Your task to perform on an android device: Add macbook pro 13 inch to the cart on amazon.com Image 0: 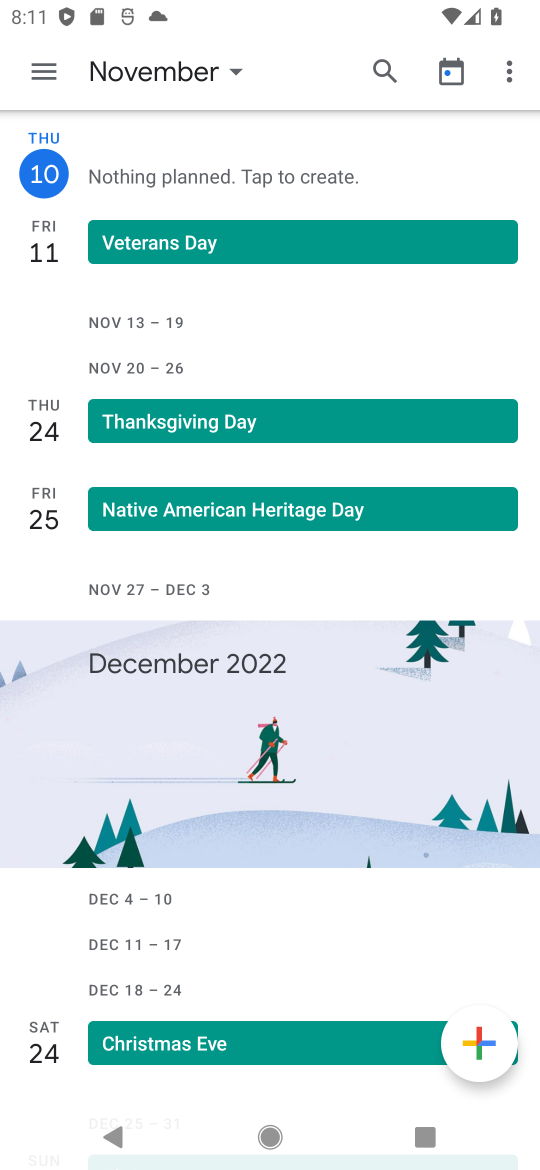
Step 0: press home button
Your task to perform on an android device: Add macbook pro 13 inch to the cart on amazon.com Image 1: 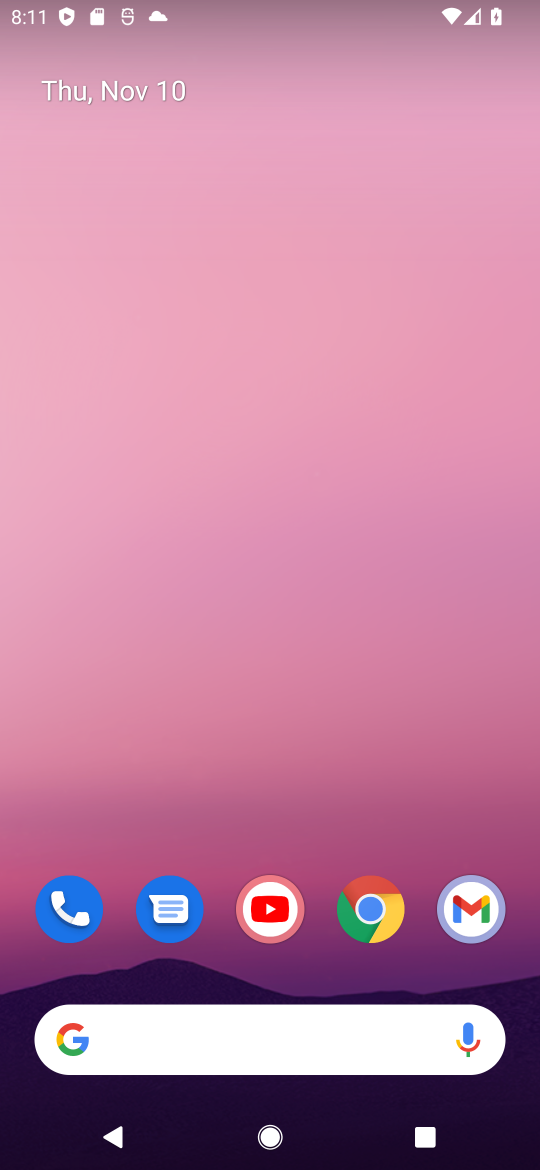
Step 1: click (306, 206)
Your task to perform on an android device: Add macbook pro 13 inch to the cart on amazon.com Image 2: 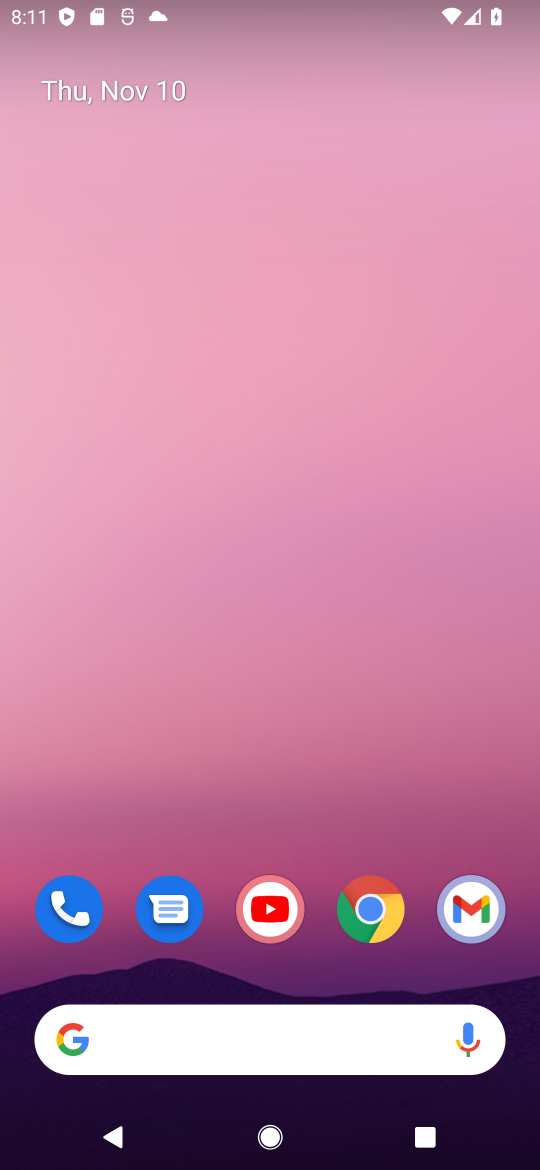
Step 2: drag from (243, 1003) to (243, 401)
Your task to perform on an android device: Add macbook pro 13 inch to the cart on amazon.com Image 3: 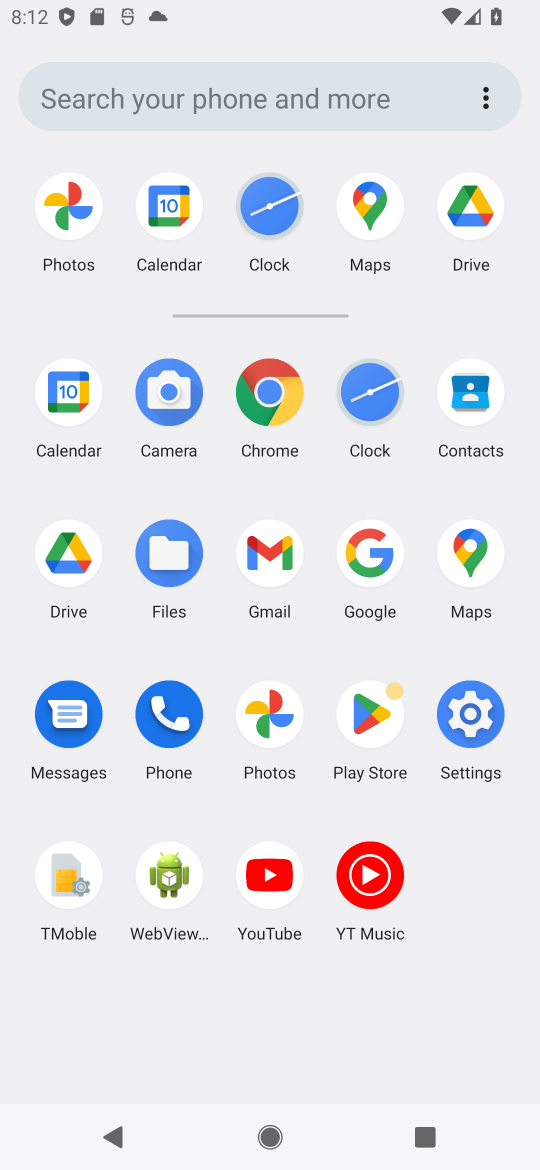
Step 3: click (360, 543)
Your task to perform on an android device: Add macbook pro 13 inch to the cart on amazon.com Image 4: 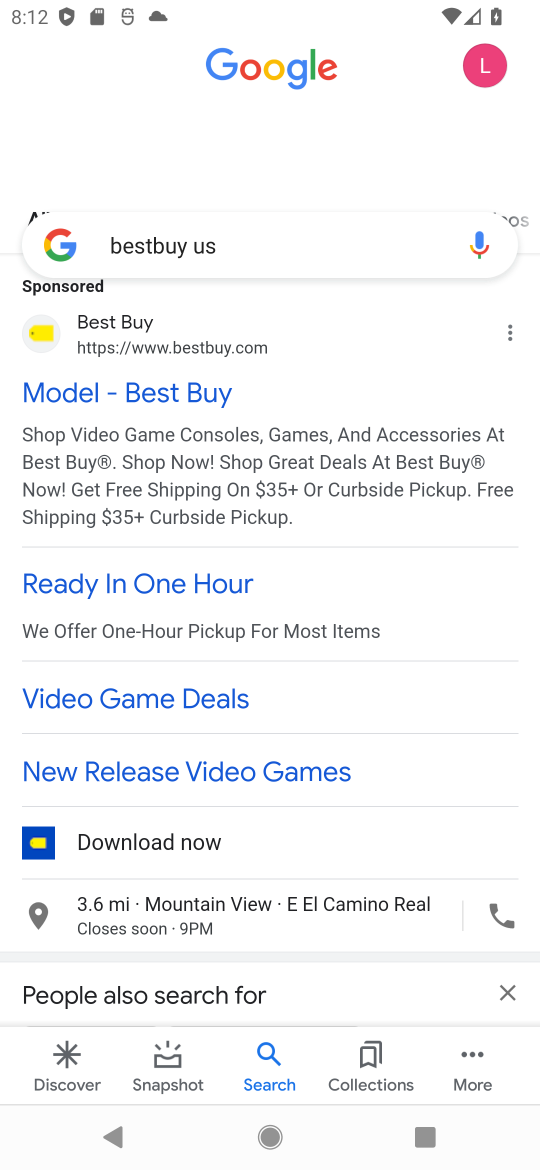
Step 4: click (313, 244)
Your task to perform on an android device: Add macbook pro 13 inch to the cart on amazon.com Image 5: 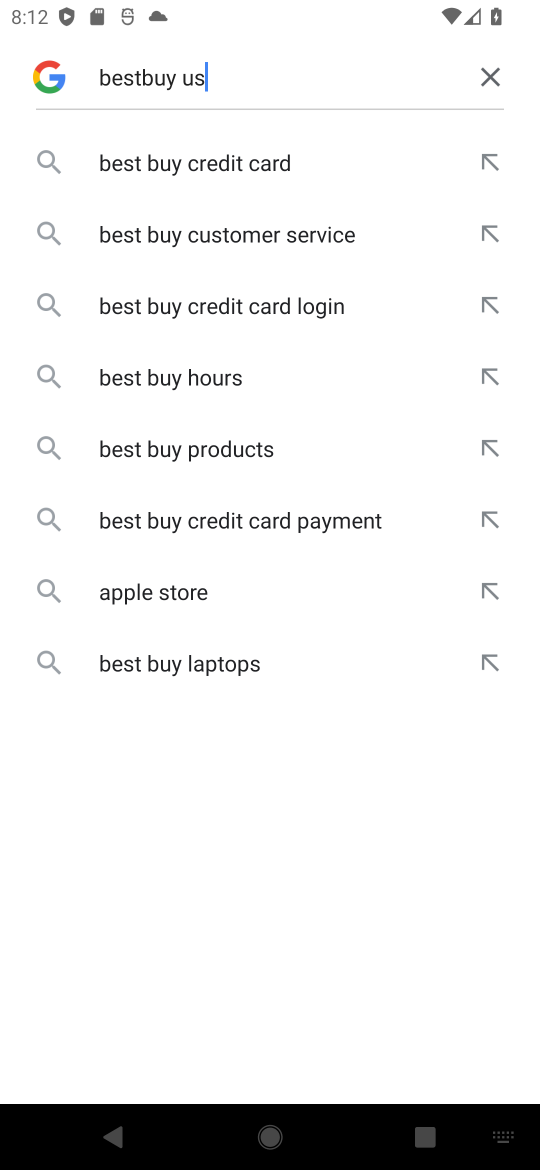
Step 5: click (477, 88)
Your task to perform on an android device: Add macbook pro 13 inch to the cart on amazon.com Image 6: 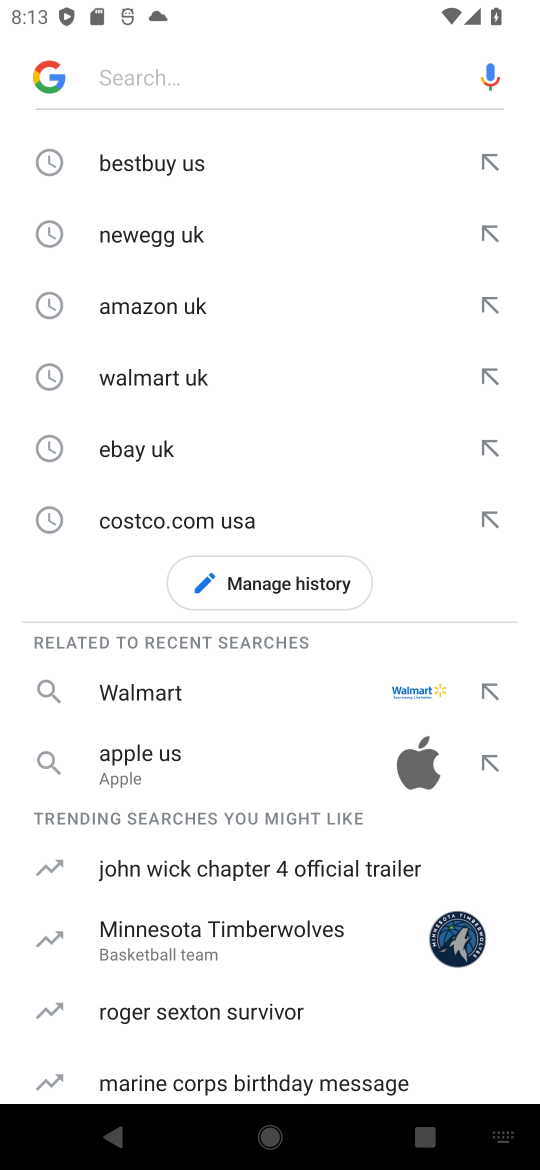
Step 6: click (209, 63)
Your task to perform on an android device: Add macbook pro 13 inch to the cart on amazon.com Image 7: 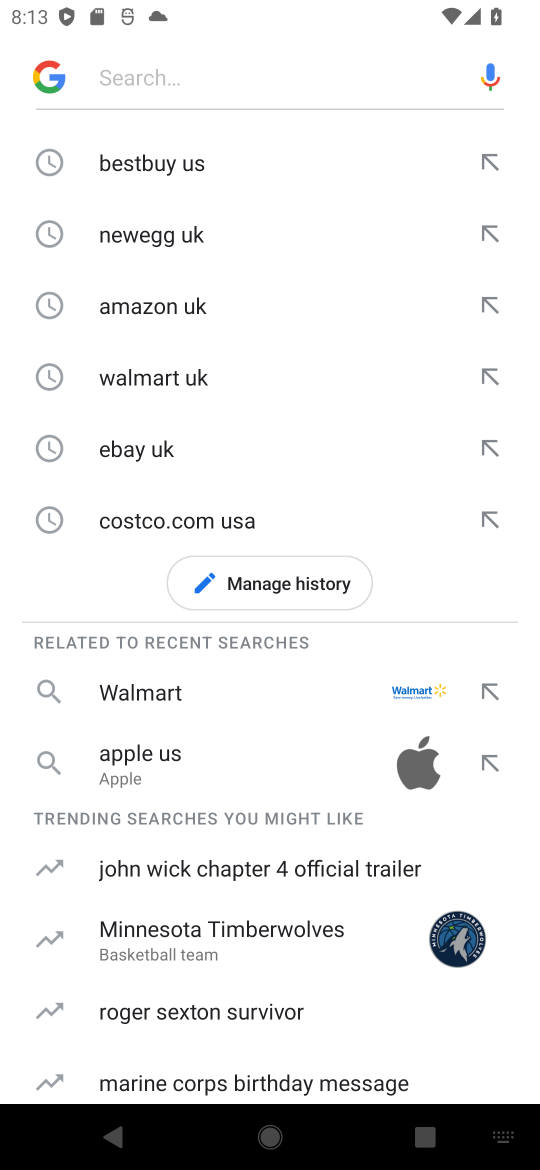
Step 7: type "amazon "
Your task to perform on an android device: Add macbook pro 13 inch to the cart on amazon.com Image 8: 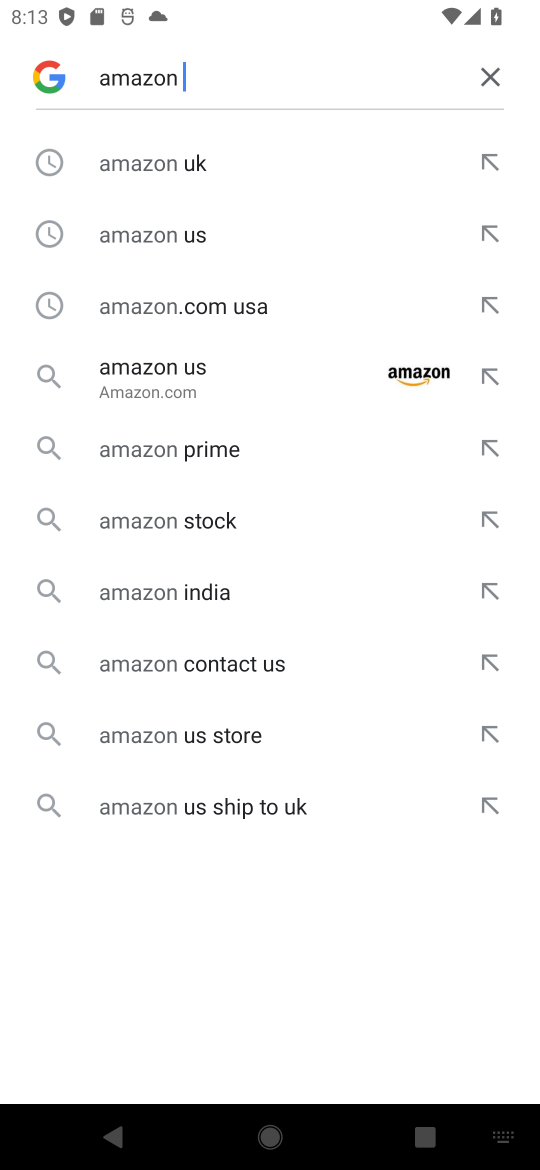
Step 8: click (169, 167)
Your task to perform on an android device: Add macbook pro 13 inch to the cart on amazon.com Image 9: 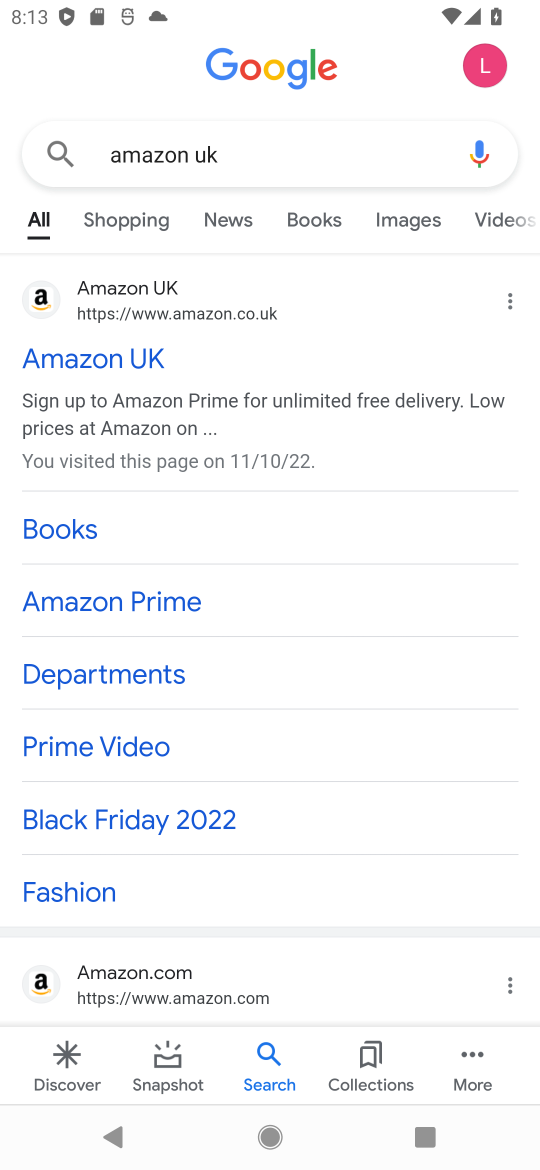
Step 9: click (47, 308)
Your task to perform on an android device: Add macbook pro 13 inch to the cart on amazon.com Image 10: 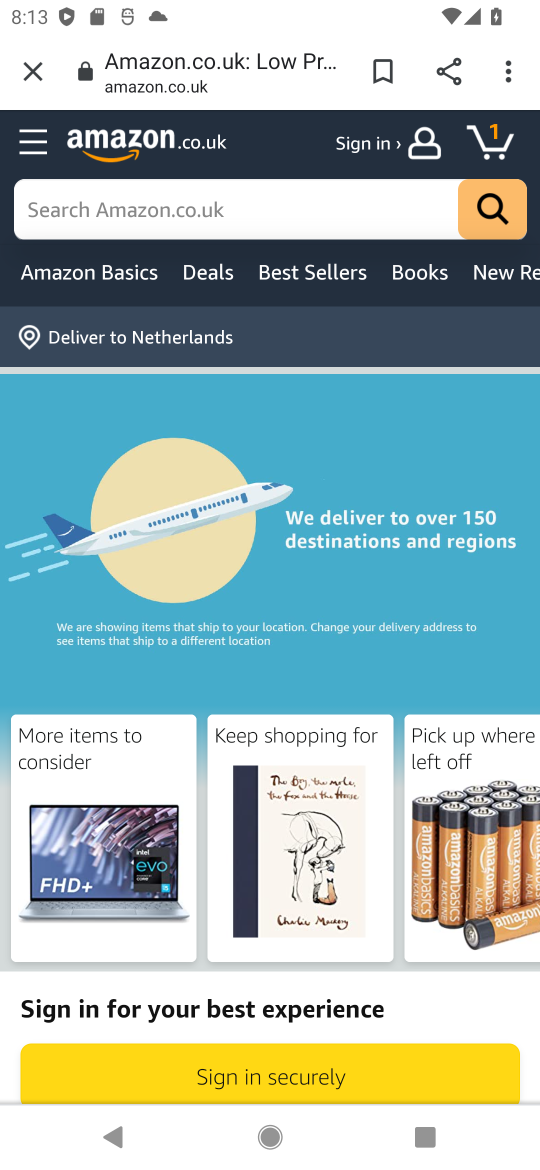
Step 10: click (329, 207)
Your task to perform on an android device: Add macbook pro 13 inch to the cart on amazon.com Image 11: 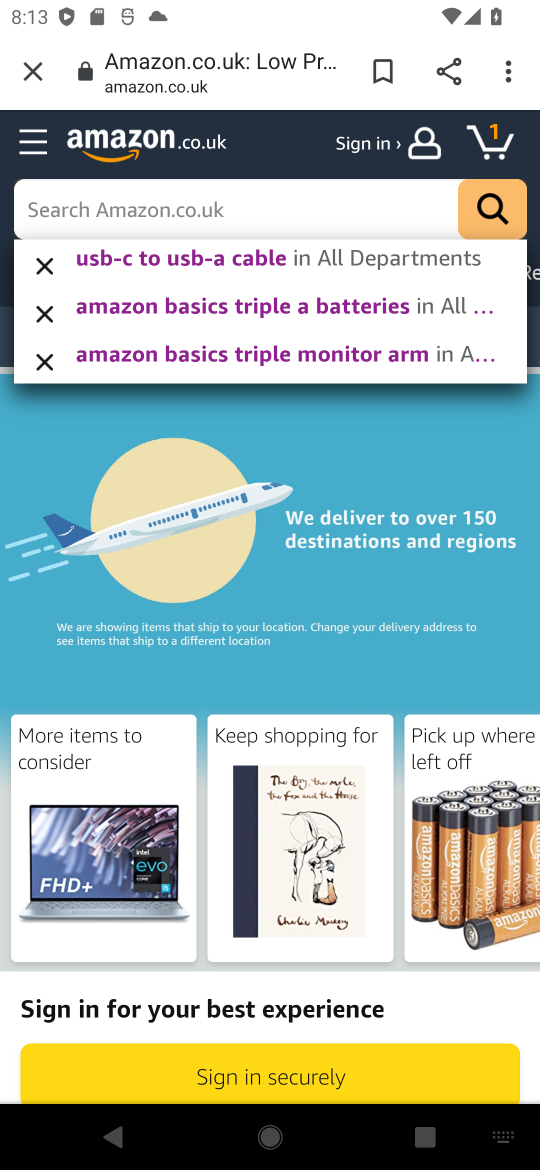
Step 11: type "macbook pro "
Your task to perform on an android device: Add macbook pro 13 inch to the cart on amazon.com Image 12: 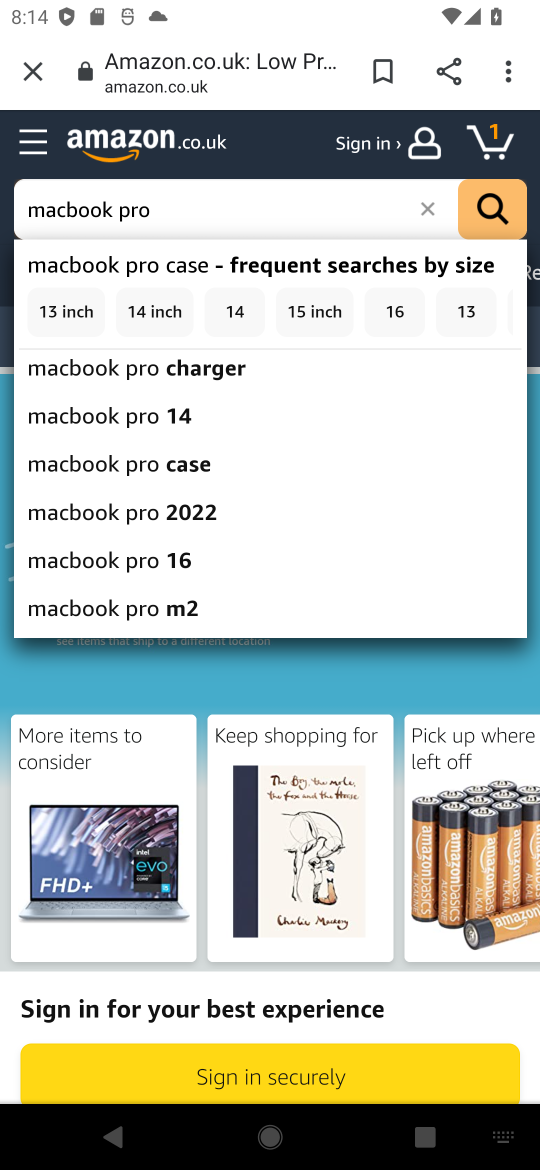
Step 12: click (44, 309)
Your task to perform on an android device: Add macbook pro 13 inch to the cart on amazon.com Image 13: 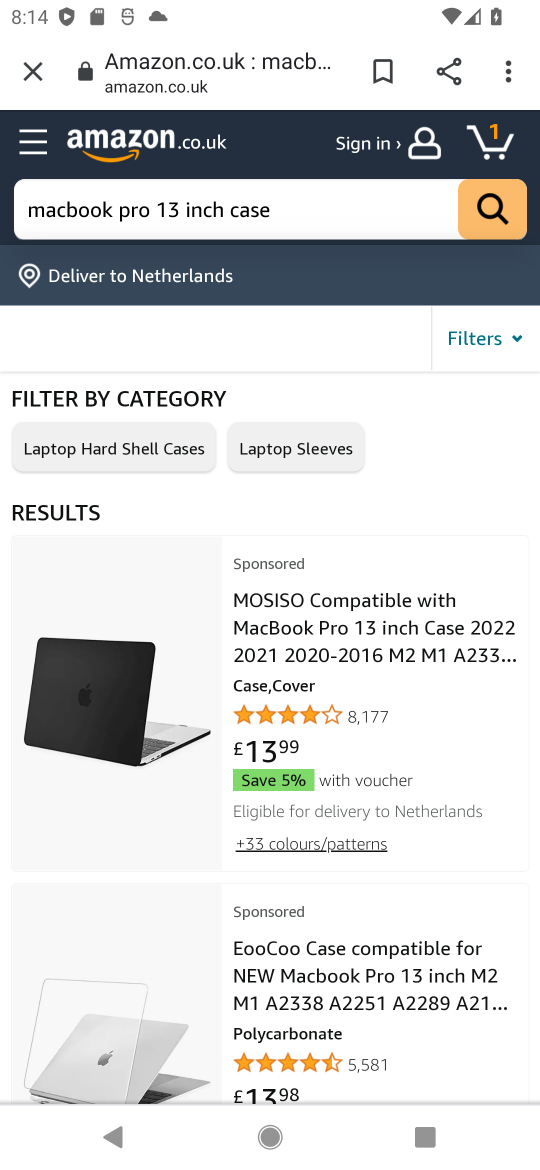
Step 13: click (287, 951)
Your task to perform on an android device: Add macbook pro 13 inch to the cart on amazon.com Image 14: 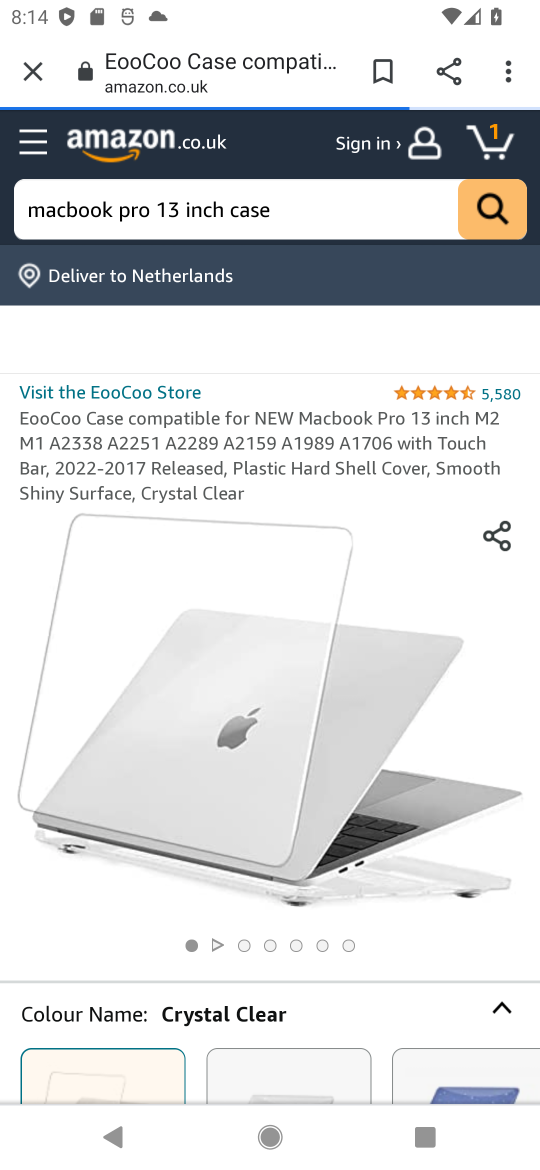
Step 14: drag from (332, 1004) to (385, 358)
Your task to perform on an android device: Add macbook pro 13 inch to the cart on amazon.com Image 15: 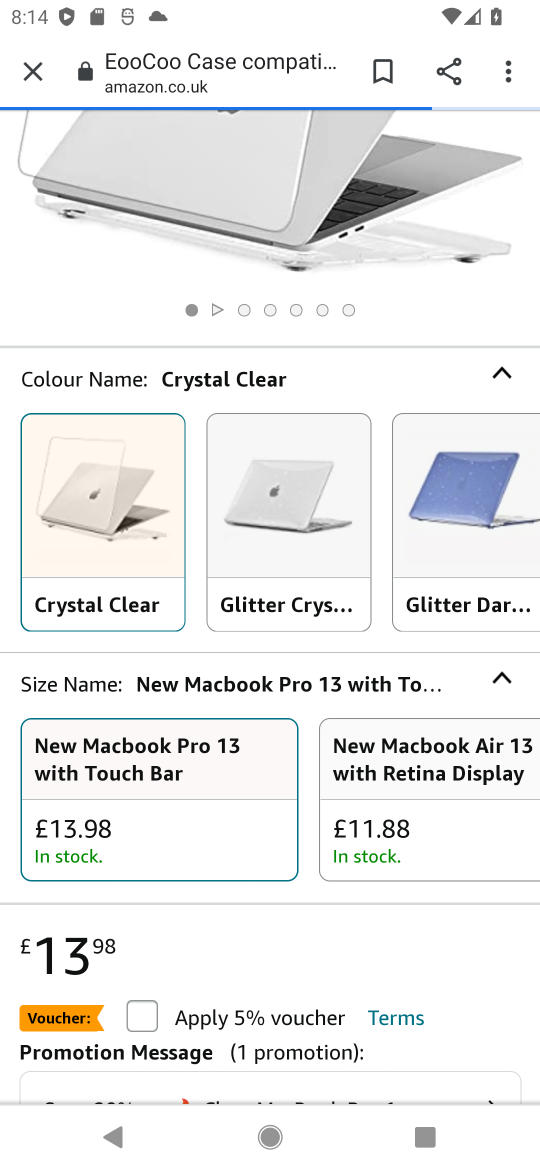
Step 15: drag from (316, 992) to (355, 323)
Your task to perform on an android device: Add macbook pro 13 inch to the cart on amazon.com Image 16: 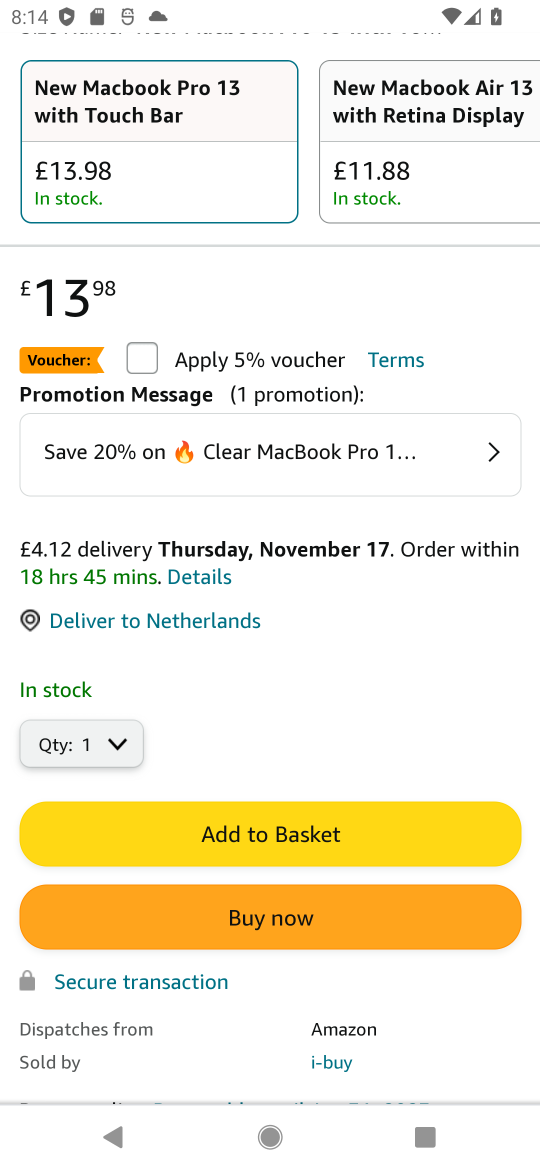
Step 16: click (253, 823)
Your task to perform on an android device: Add macbook pro 13 inch to the cart on amazon.com Image 17: 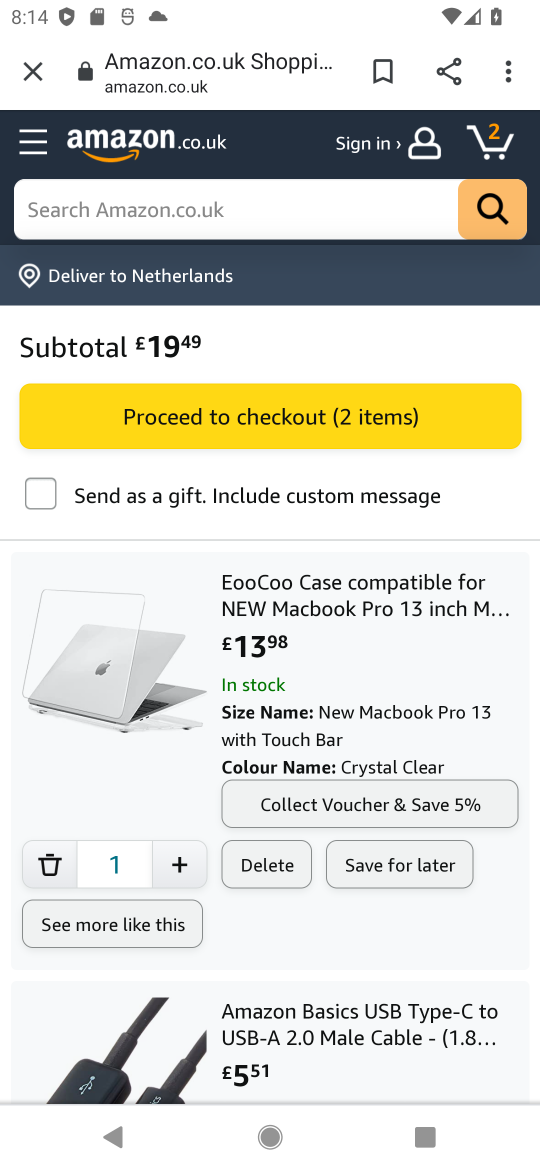
Step 17: task complete